Your task to perform on an android device: turn on priority inbox in the gmail app Image 0: 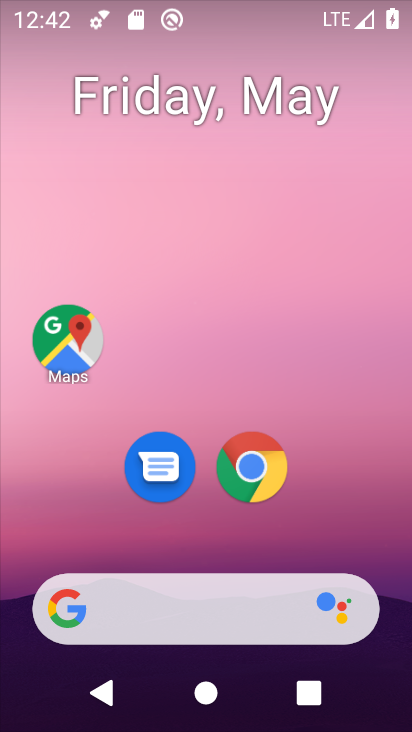
Step 0: drag from (327, 437) to (277, 10)
Your task to perform on an android device: turn on priority inbox in the gmail app Image 1: 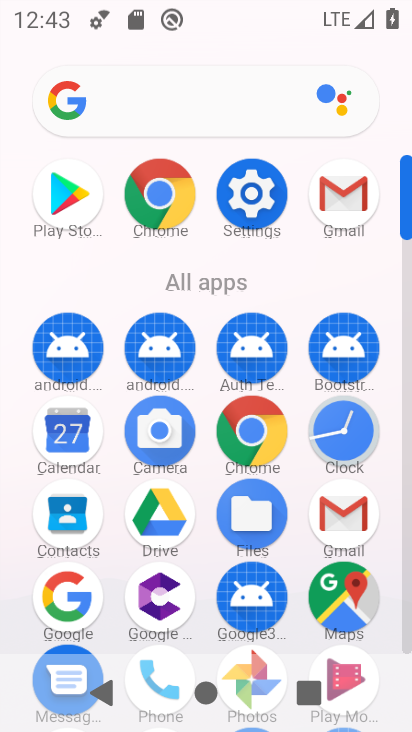
Step 1: click (350, 187)
Your task to perform on an android device: turn on priority inbox in the gmail app Image 2: 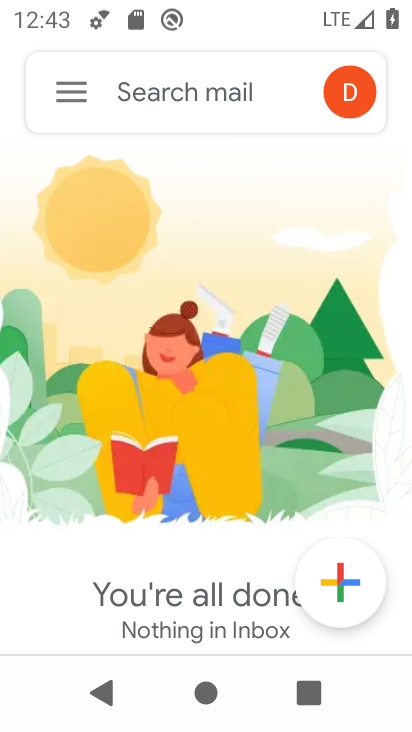
Step 2: click (90, 105)
Your task to perform on an android device: turn on priority inbox in the gmail app Image 3: 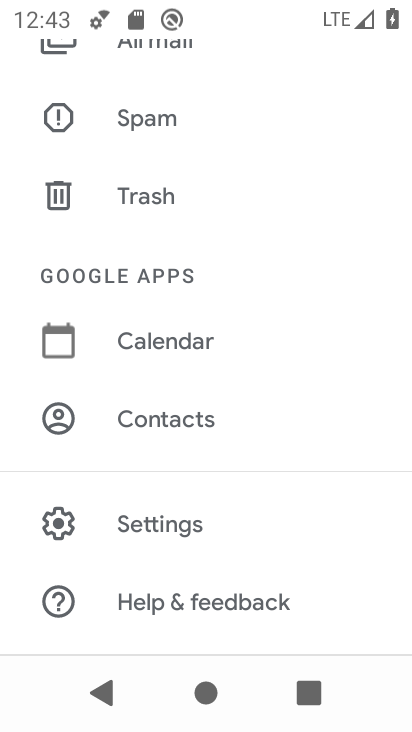
Step 3: click (145, 502)
Your task to perform on an android device: turn on priority inbox in the gmail app Image 4: 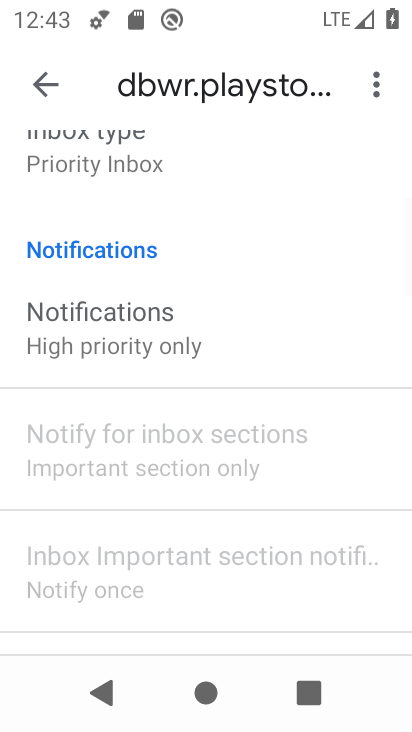
Step 4: drag from (197, 575) to (231, 124)
Your task to perform on an android device: turn on priority inbox in the gmail app Image 5: 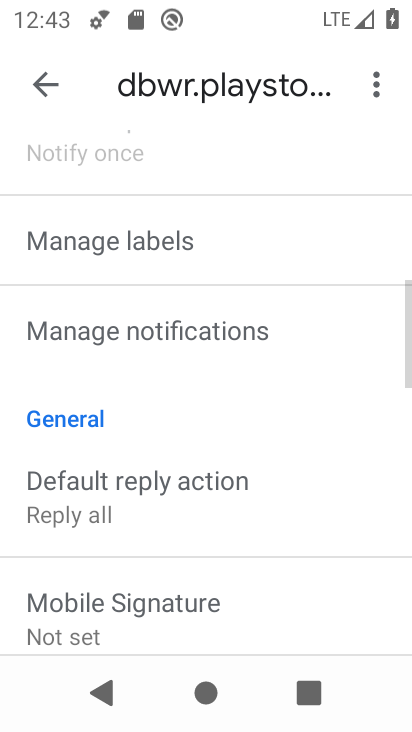
Step 5: drag from (231, 125) to (180, 635)
Your task to perform on an android device: turn on priority inbox in the gmail app Image 6: 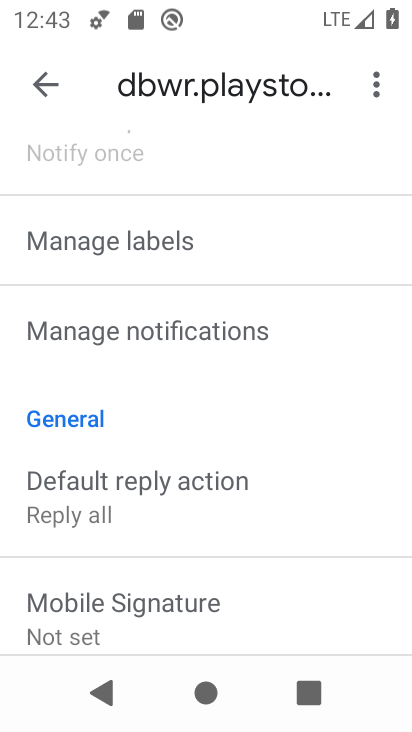
Step 6: drag from (224, 187) to (198, 664)
Your task to perform on an android device: turn on priority inbox in the gmail app Image 7: 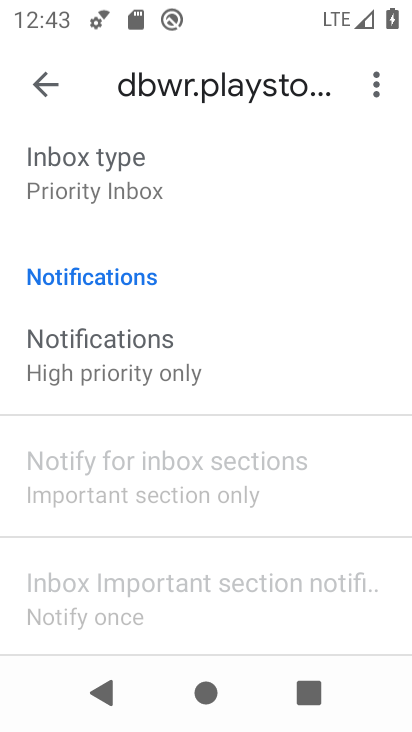
Step 7: click (111, 356)
Your task to perform on an android device: turn on priority inbox in the gmail app Image 8: 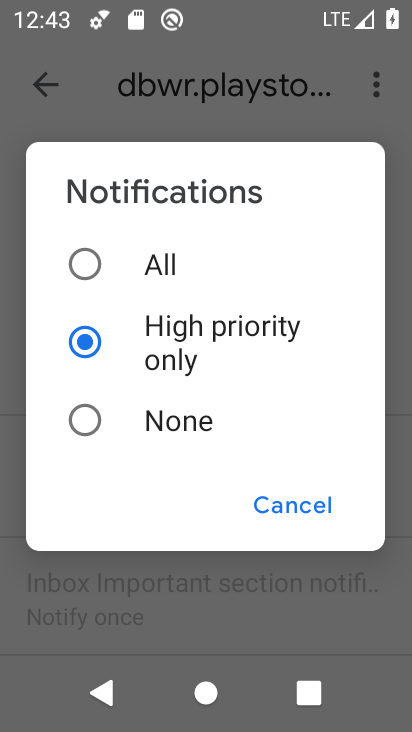
Step 8: click (260, 496)
Your task to perform on an android device: turn on priority inbox in the gmail app Image 9: 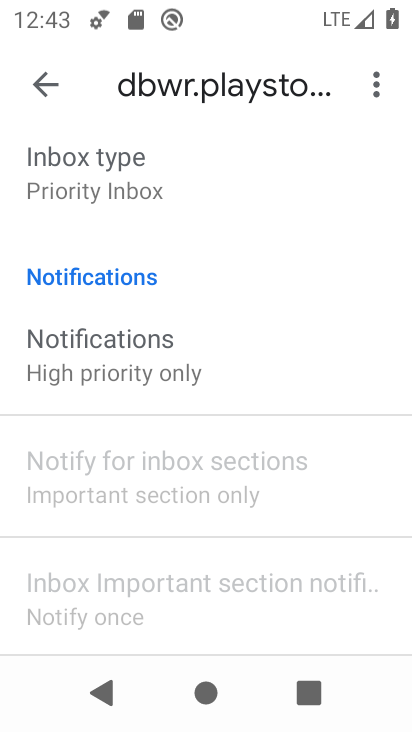
Step 9: click (119, 179)
Your task to perform on an android device: turn on priority inbox in the gmail app Image 10: 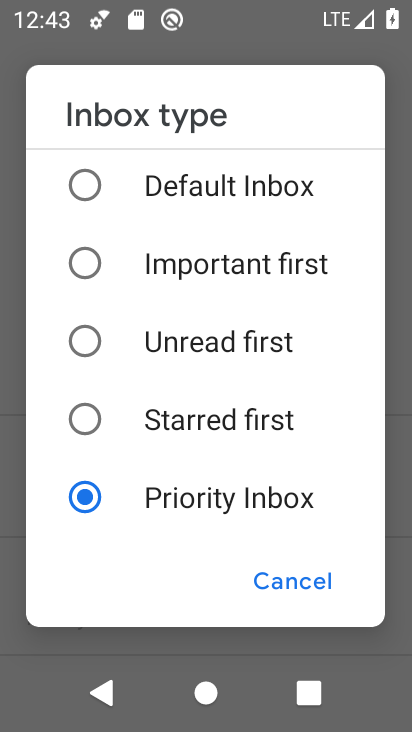
Step 10: task complete